Your task to perform on an android device: change the clock display to show seconds Image 0: 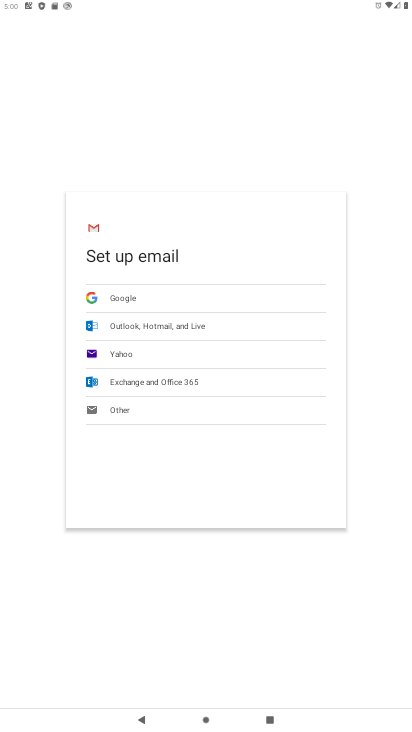
Step 0: press home button
Your task to perform on an android device: change the clock display to show seconds Image 1: 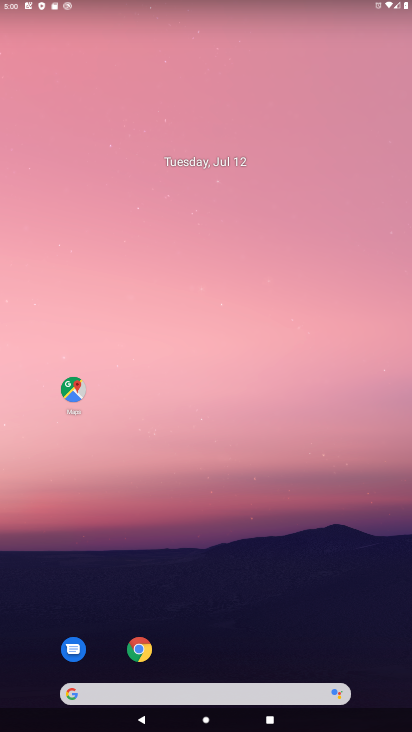
Step 1: drag from (191, 688) to (337, 43)
Your task to perform on an android device: change the clock display to show seconds Image 2: 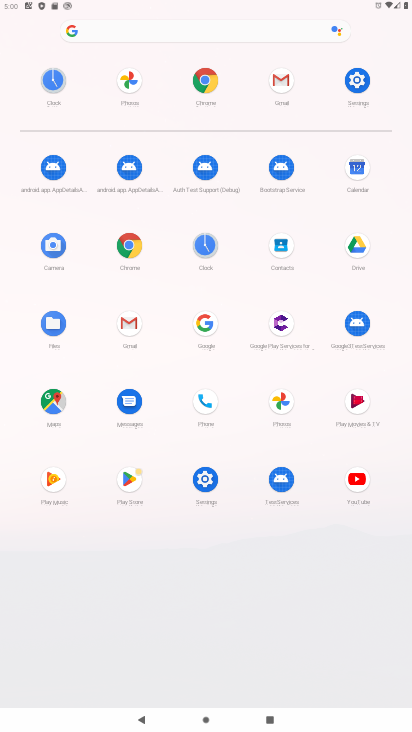
Step 2: click (200, 244)
Your task to perform on an android device: change the clock display to show seconds Image 3: 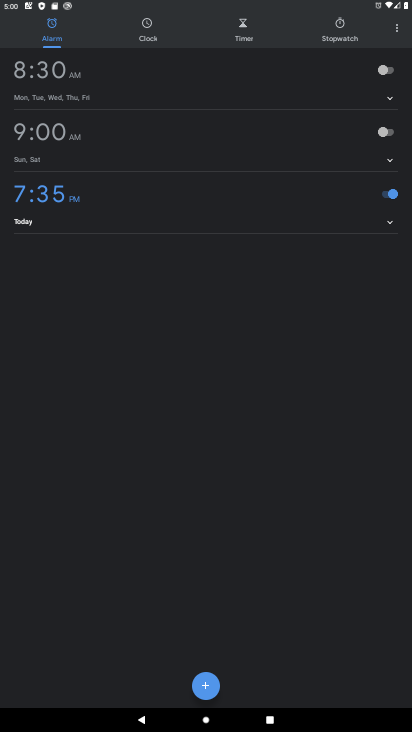
Step 3: click (398, 28)
Your task to perform on an android device: change the clock display to show seconds Image 4: 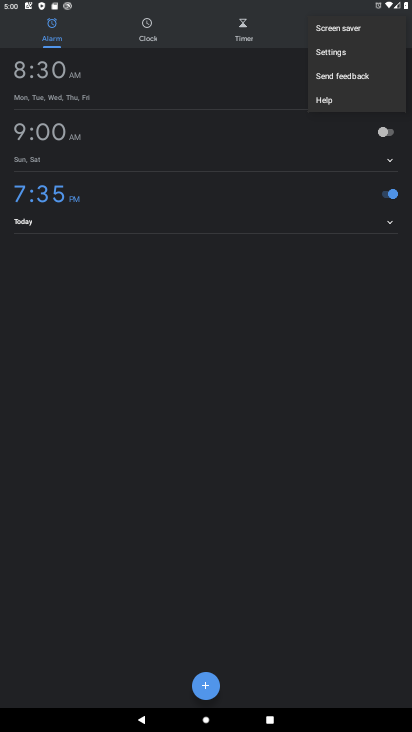
Step 4: click (334, 54)
Your task to perform on an android device: change the clock display to show seconds Image 5: 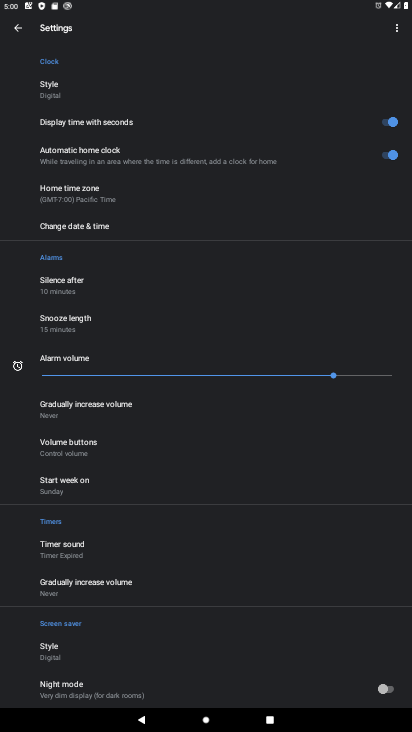
Step 5: task complete